Your task to perform on an android device: toggle notifications settings in the gmail app Image 0: 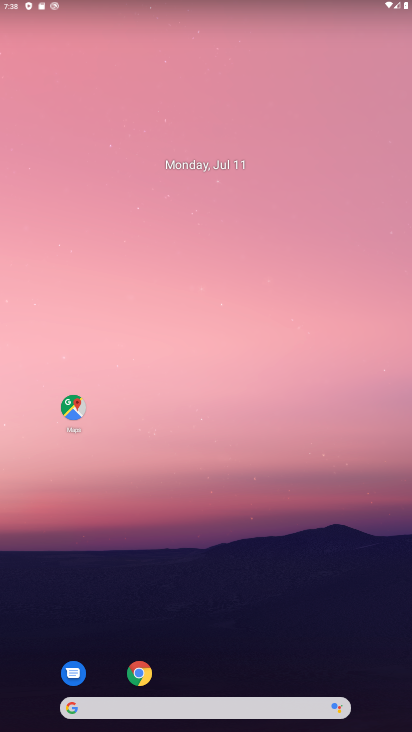
Step 0: drag from (308, 610) to (220, 201)
Your task to perform on an android device: toggle notifications settings in the gmail app Image 1: 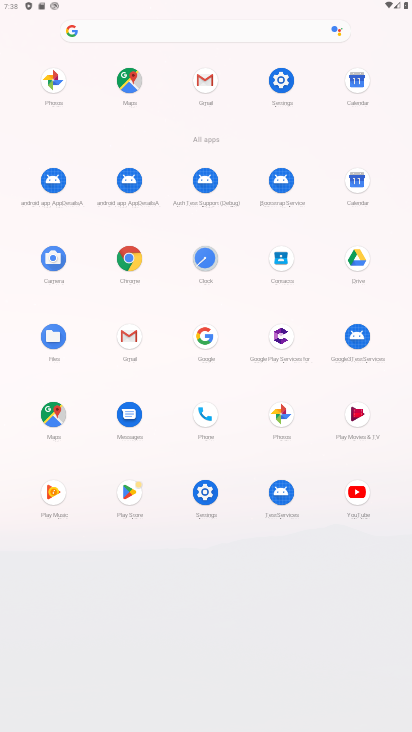
Step 1: click (204, 74)
Your task to perform on an android device: toggle notifications settings in the gmail app Image 2: 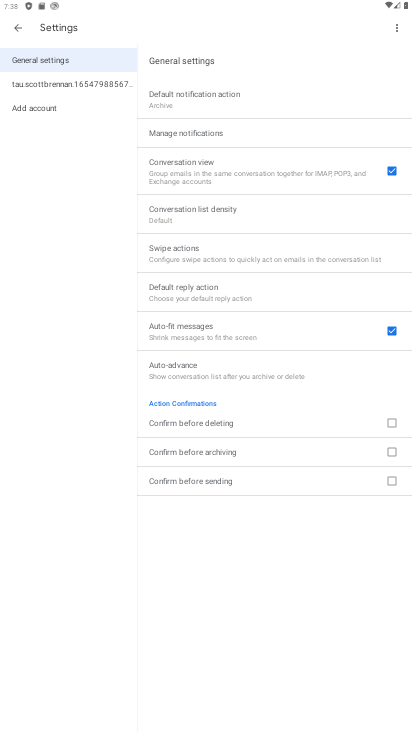
Step 2: click (88, 88)
Your task to perform on an android device: toggle notifications settings in the gmail app Image 3: 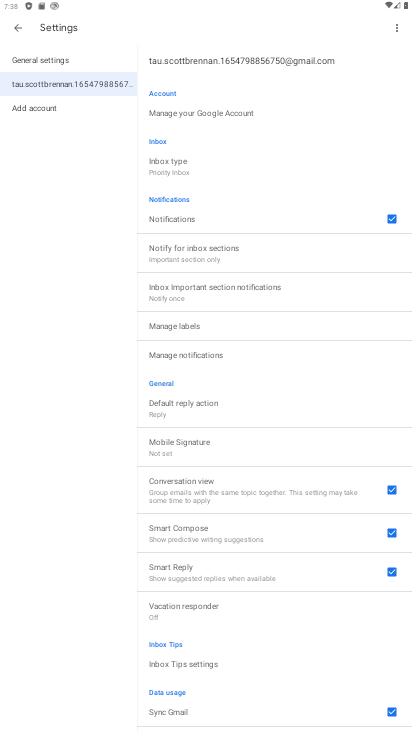
Step 3: click (180, 358)
Your task to perform on an android device: toggle notifications settings in the gmail app Image 4: 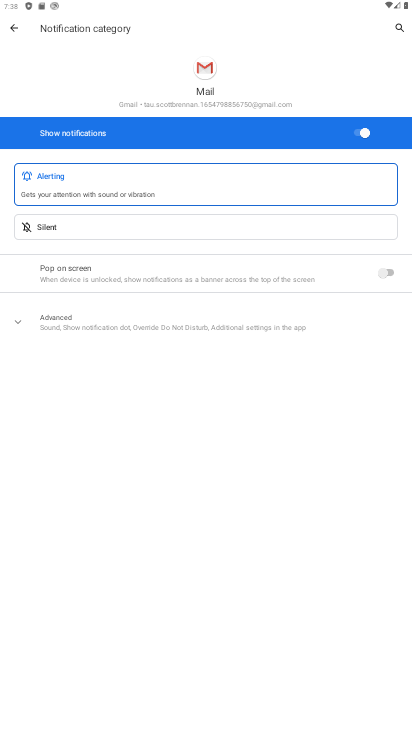
Step 4: click (367, 133)
Your task to perform on an android device: toggle notifications settings in the gmail app Image 5: 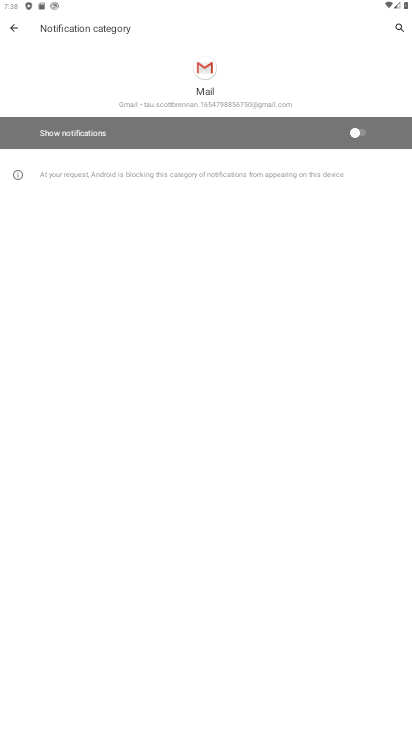
Step 5: task complete